Your task to perform on an android device: Add usb-c to usb-b to the cart on walmart Image 0: 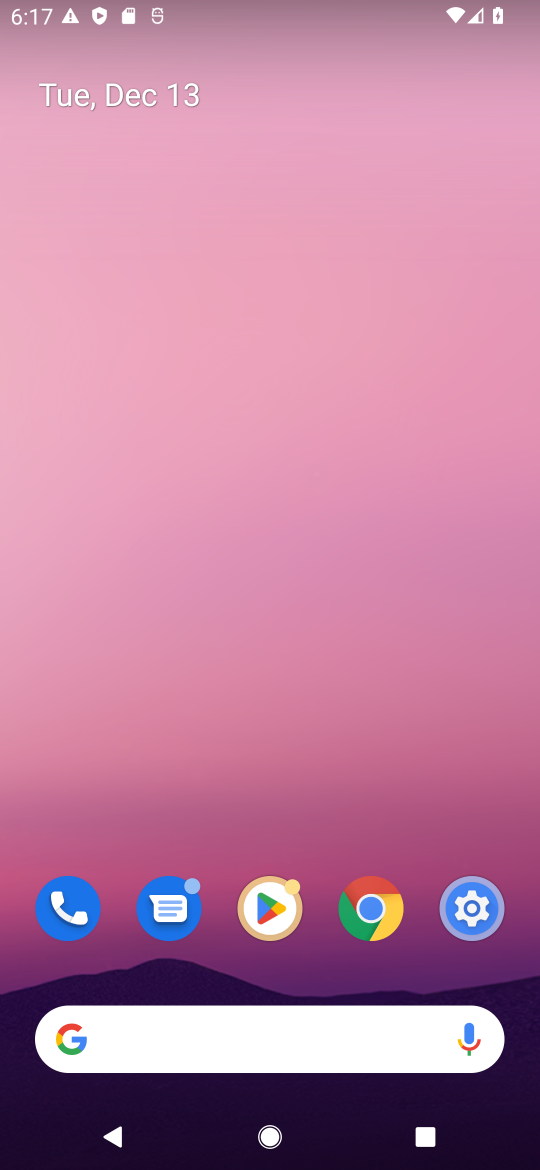
Step 0: click (125, 1028)
Your task to perform on an android device: Add usb-c to usb-b to the cart on walmart Image 1: 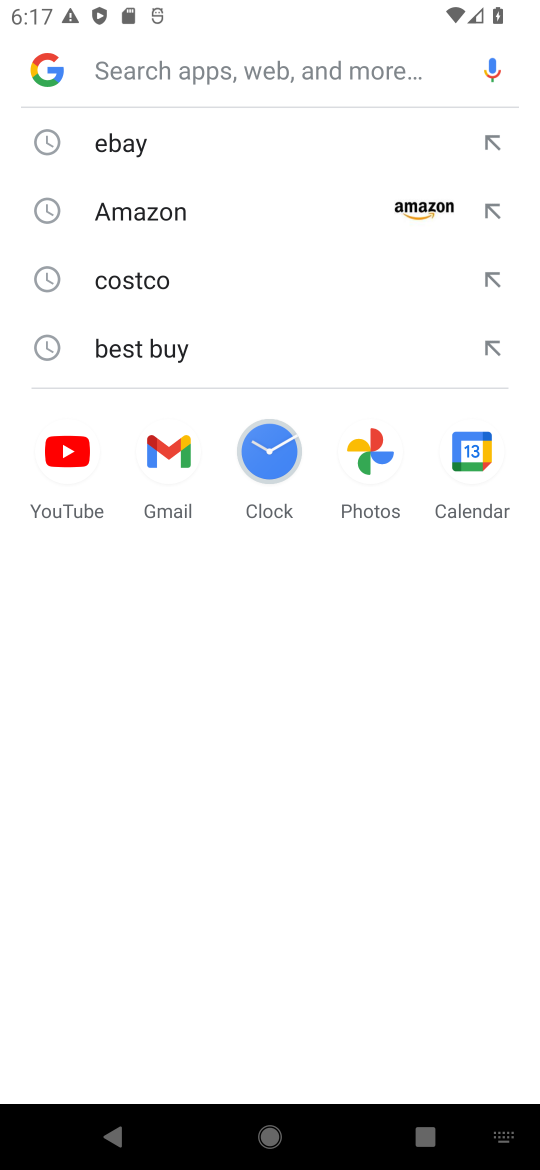
Step 1: type "walmart"
Your task to perform on an android device: Add usb-c to usb-b to the cart on walmart Image 2: 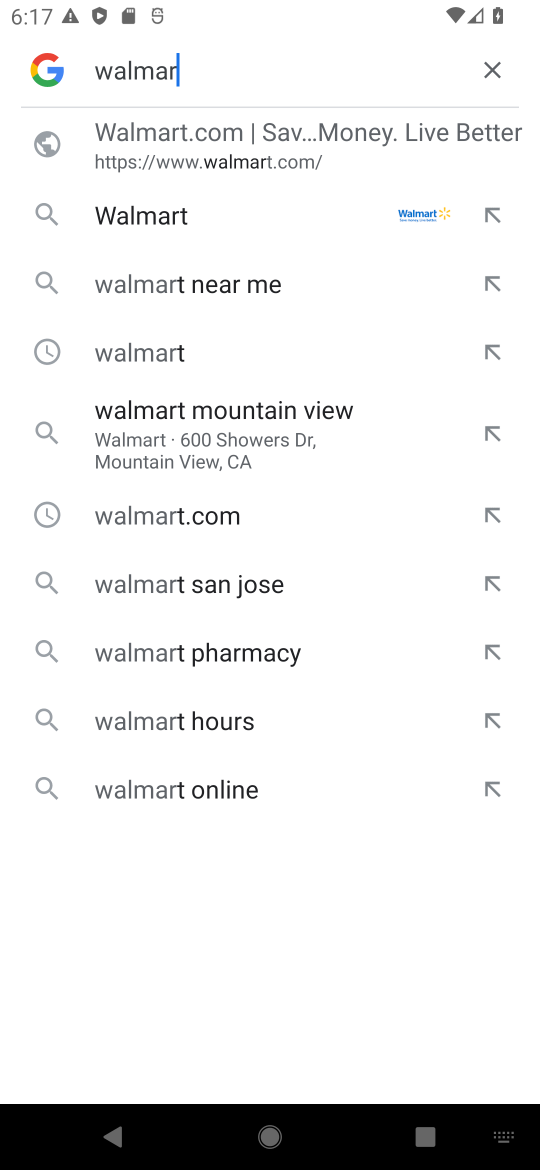
Step 2: press enter
Your task to perform on an android device: Add usb-c to usb-b to the cart on walmart Image 3: 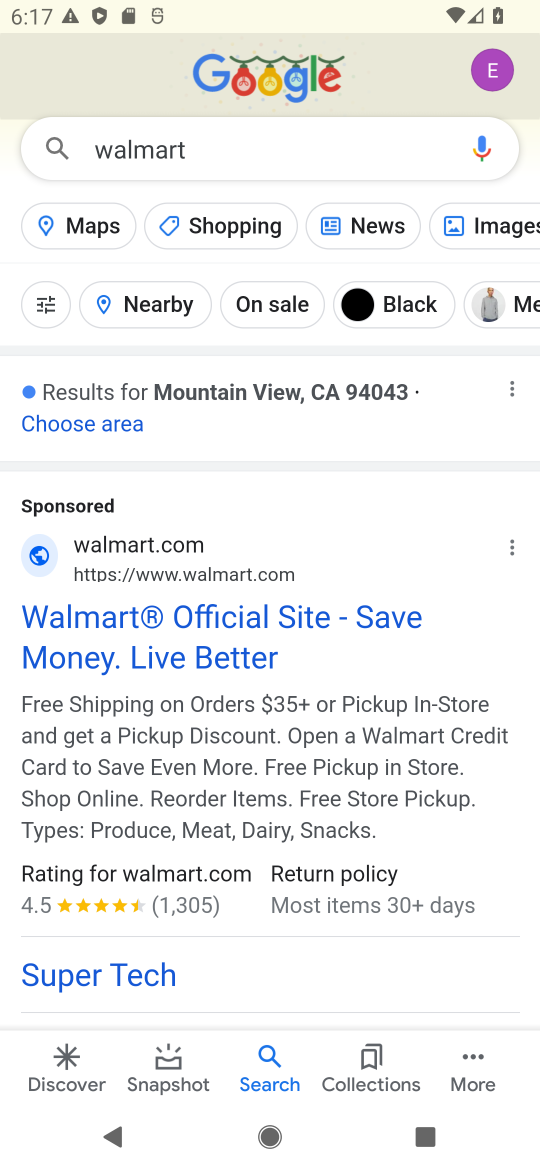
Step 3: click (141, 629)
Your task to perform on an android device: Add usb-c to usb-b to the cart on walmart Image 4: 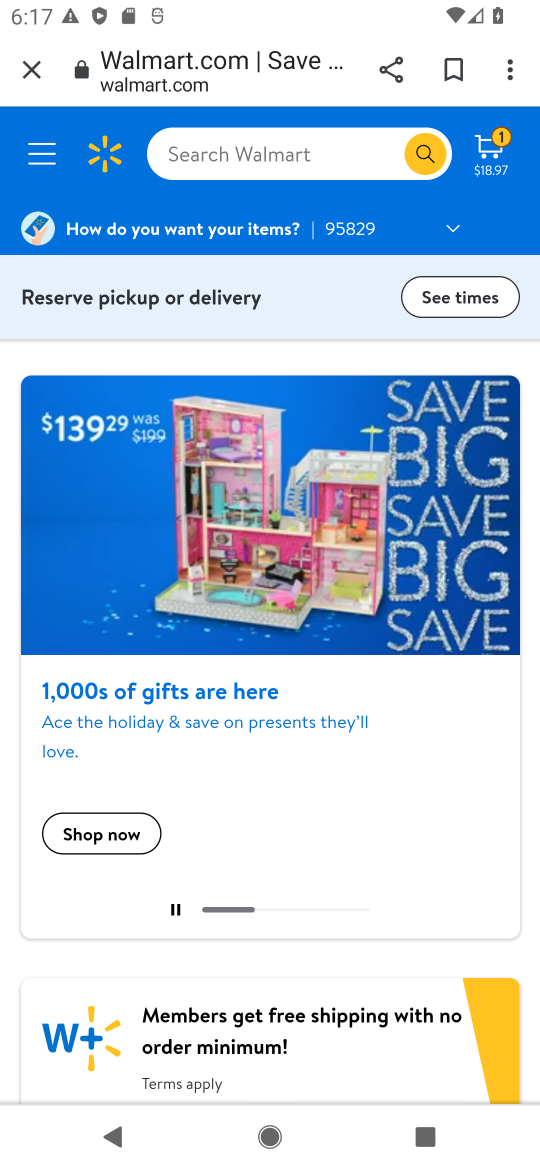
Step 4: click (239, 146)
Your task to perform on an android device: Add usb-c to usb-b to the cart on walmart Image 5: 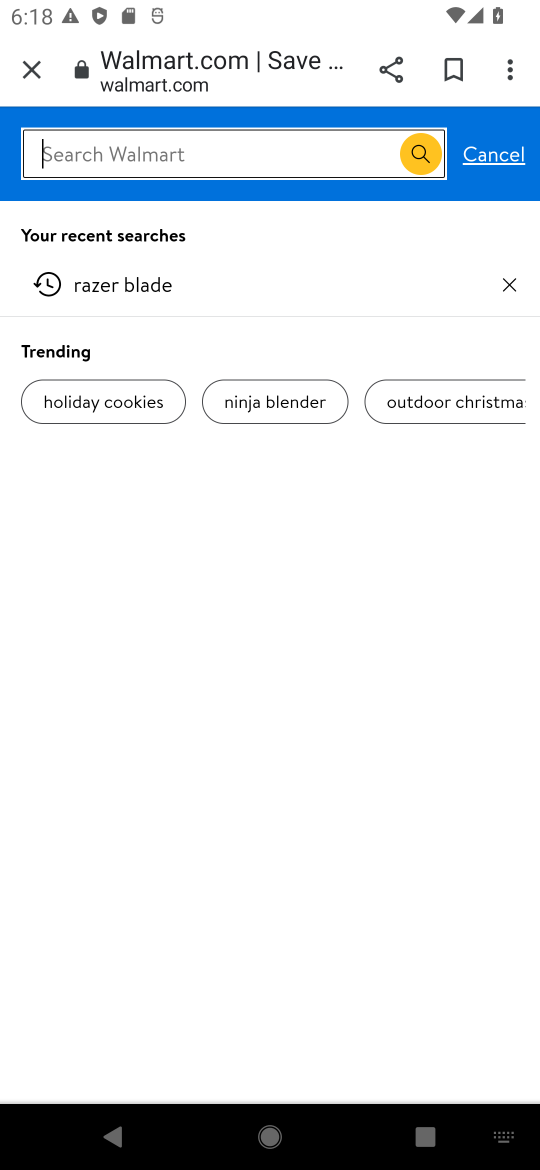
Step 5: type "usb-c to usb-b"
Your task to perform on an android device: Add usb-c to usb-b to the cart on walmart Image 6: 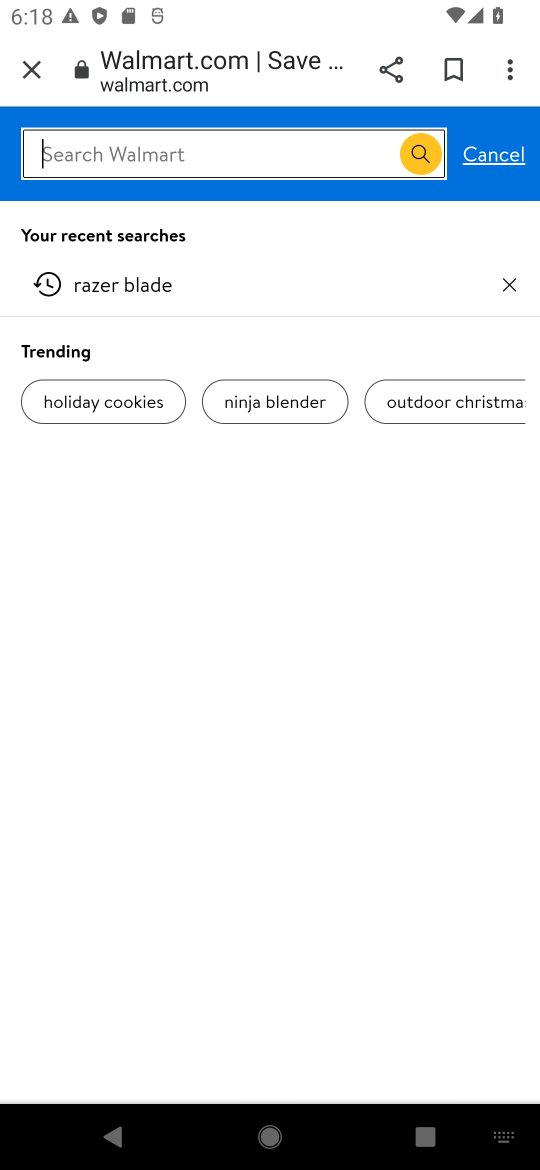
Step 6: press enter
Your task to perform on an android device: Add usb-c to usb-b to the cart on walmart Image 7: 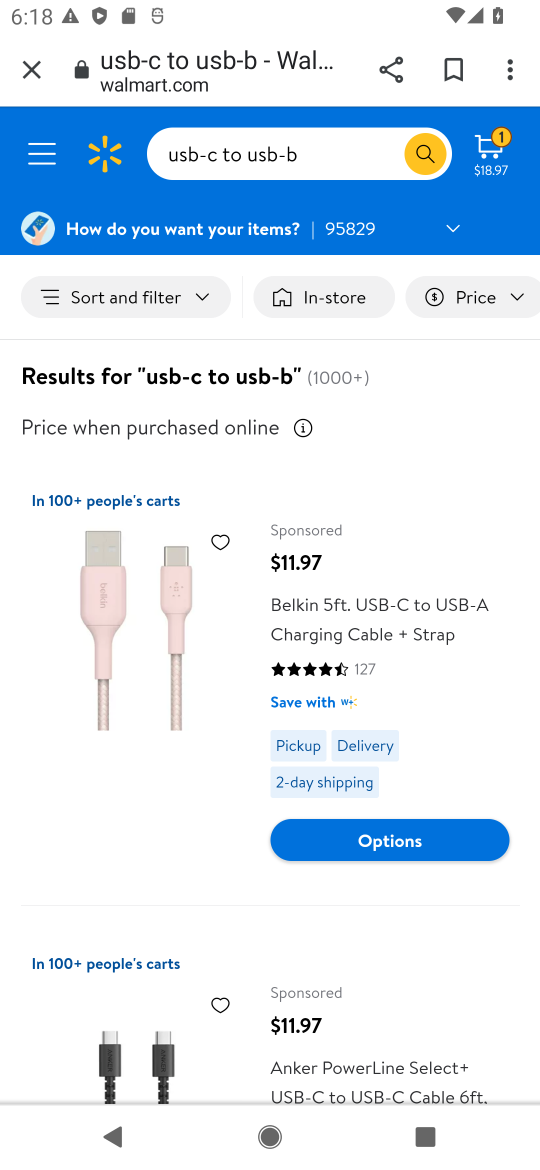
Step 7: click (346, 618)
Your task to perform on an android device: Add usb-c to usb-b to the cart on walmart Image 8: 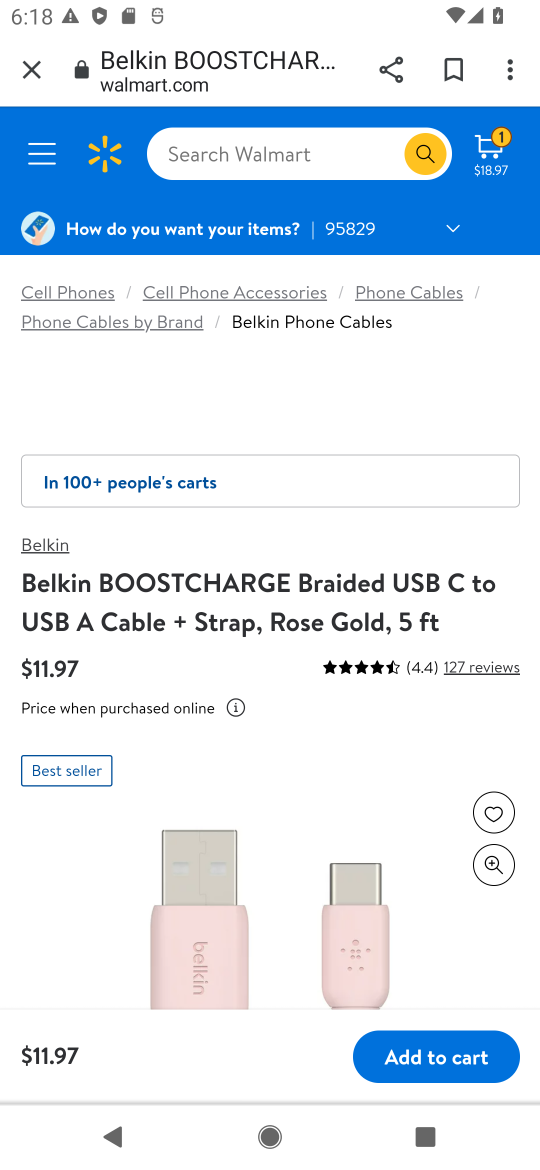
Step 8: click (448, 1057)
Your task to perform on an android device: Add usb-c to usb-b to the cart on walmart Image 9: 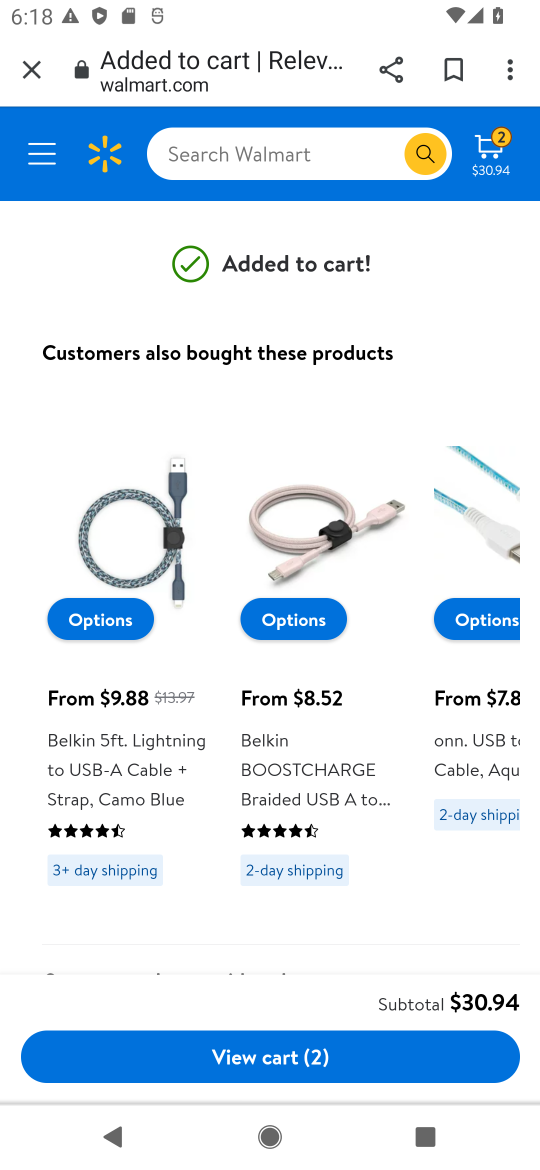
Step 9: task complete